Your task to perform on an android device: turn pop-ups off in chrome Image 0: 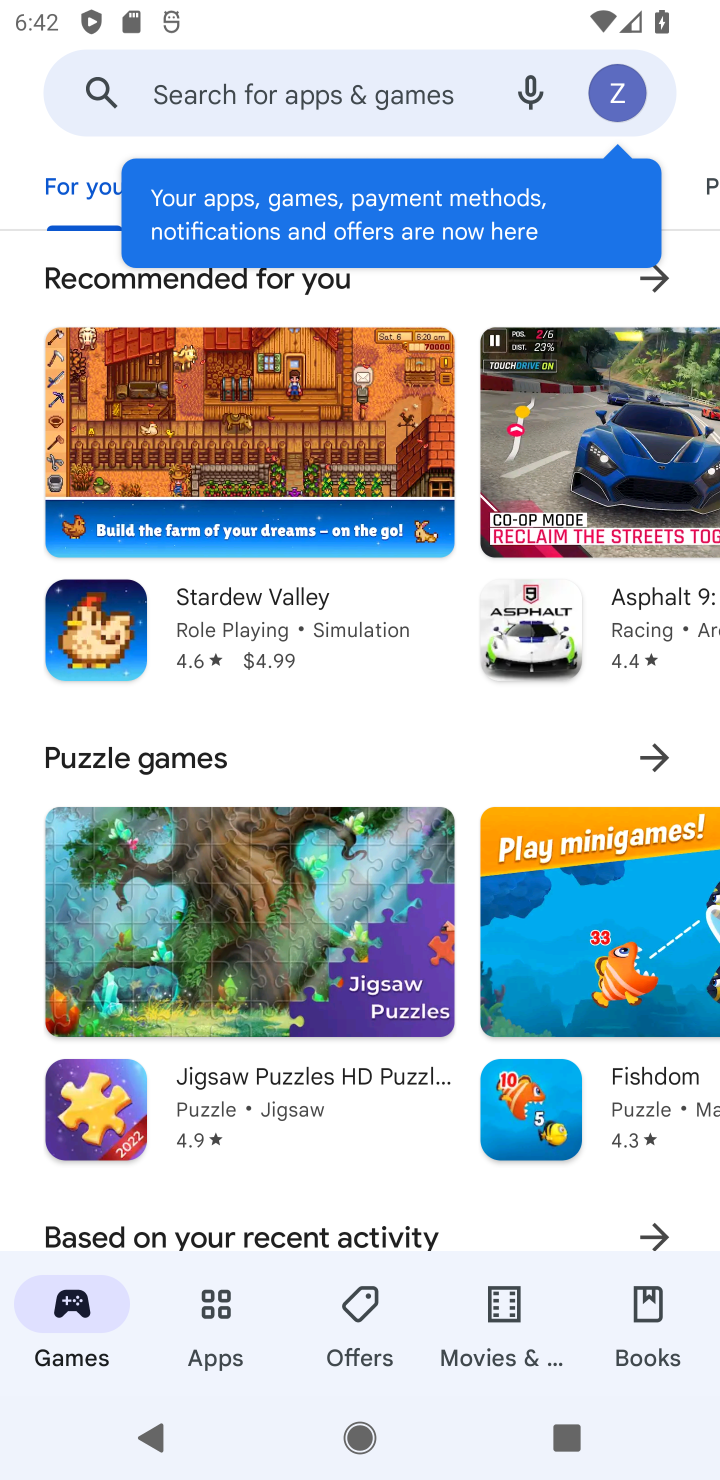
Step 0: press home button
Your task to perform on an android device: turn pop-ups off in chrome Image 1: 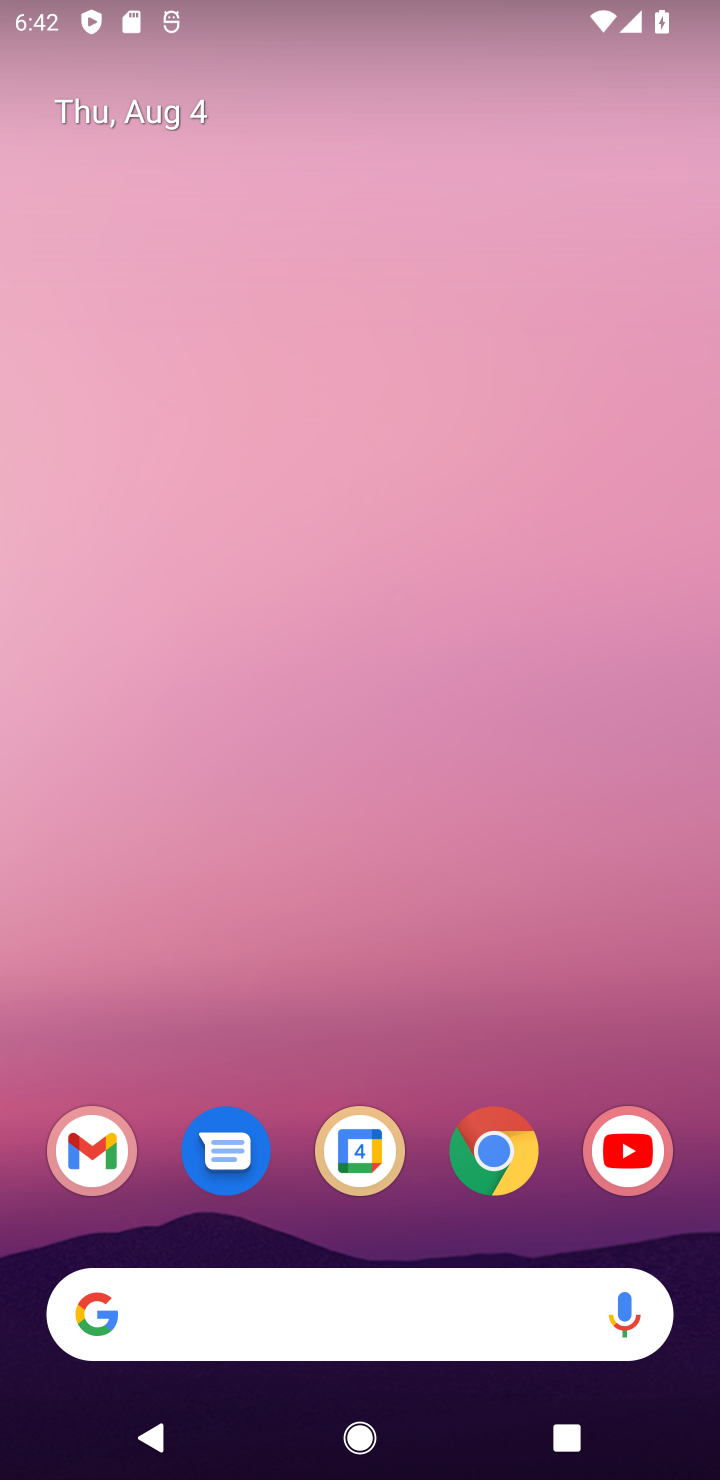
Step 1: click (466, 1152)
Your task to perform on an android device: turn pop-ups off in chrome Image 2: 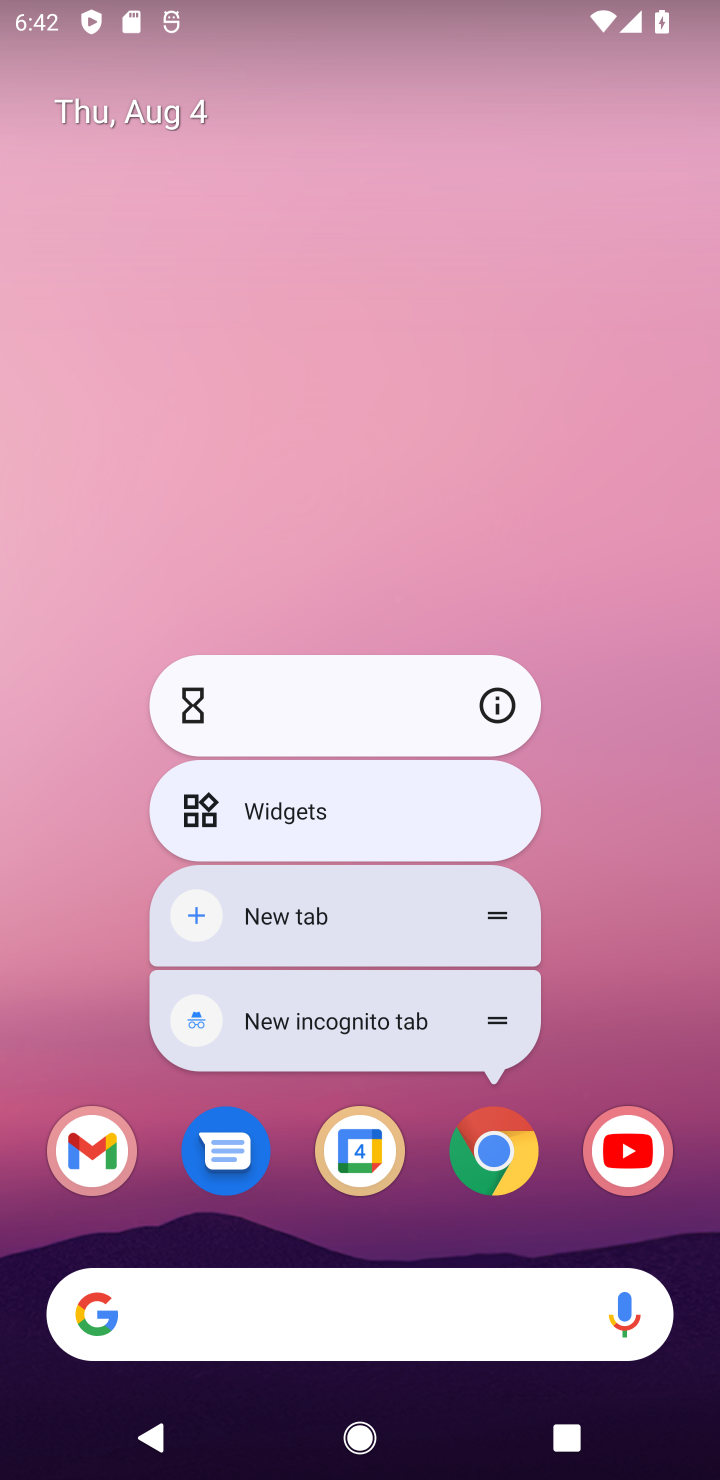
Step 2: click (526, 1137)
Your task to perform on an android device: turn pop-ups off in chrome Image 3: 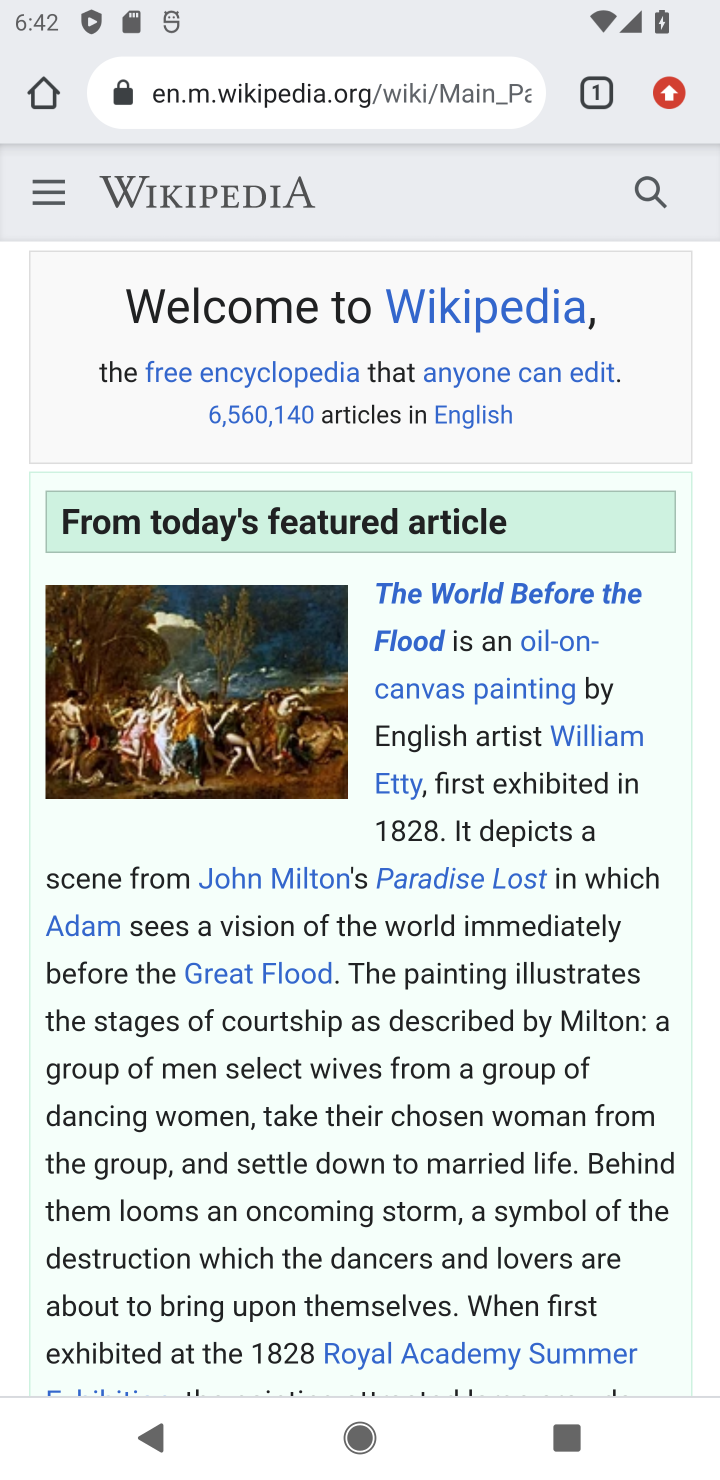
Step 3: click (665, 84)
Your task to perform on an android device: turn pop-ups off in chrome Image 4: 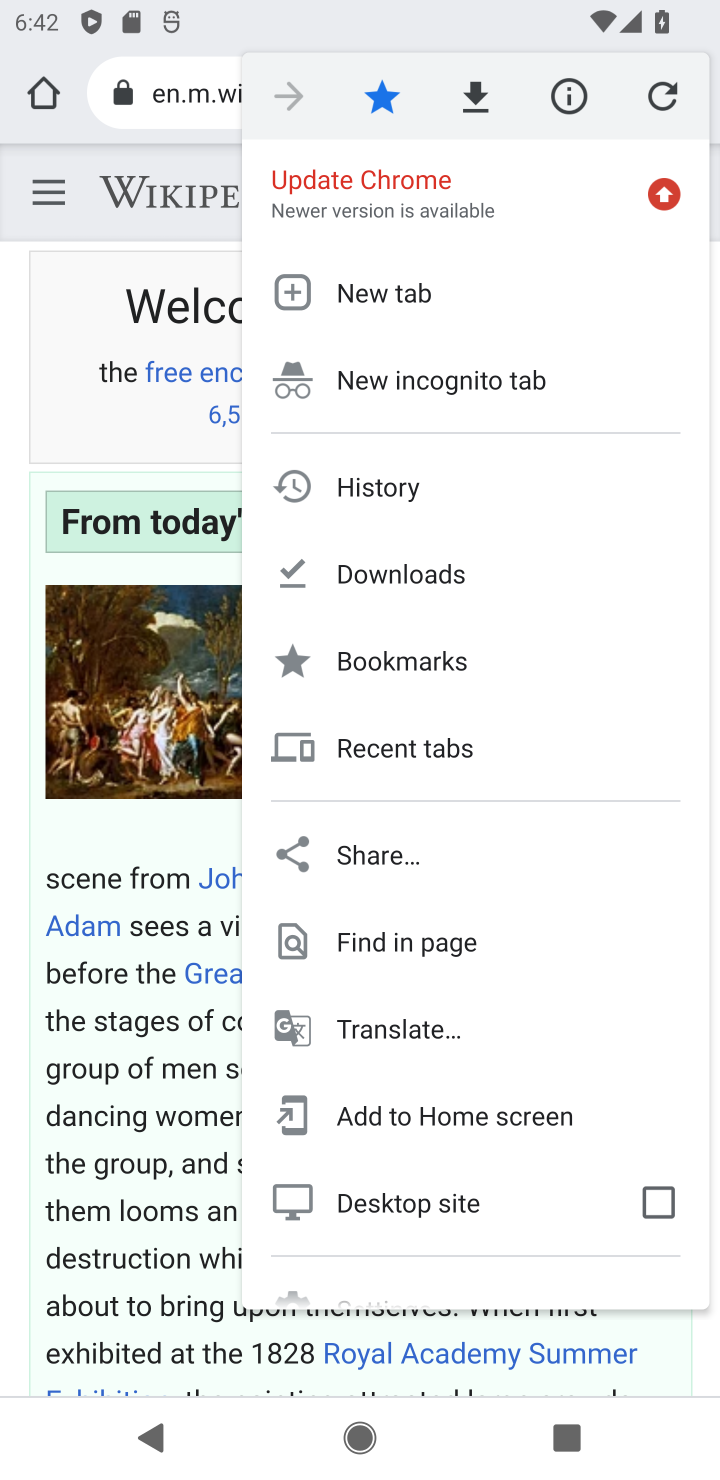
Step 4: drag from (374, 1161) to (415, 503)
Your task to perform on an android device: turn pop-ups off in chrome Image 5: 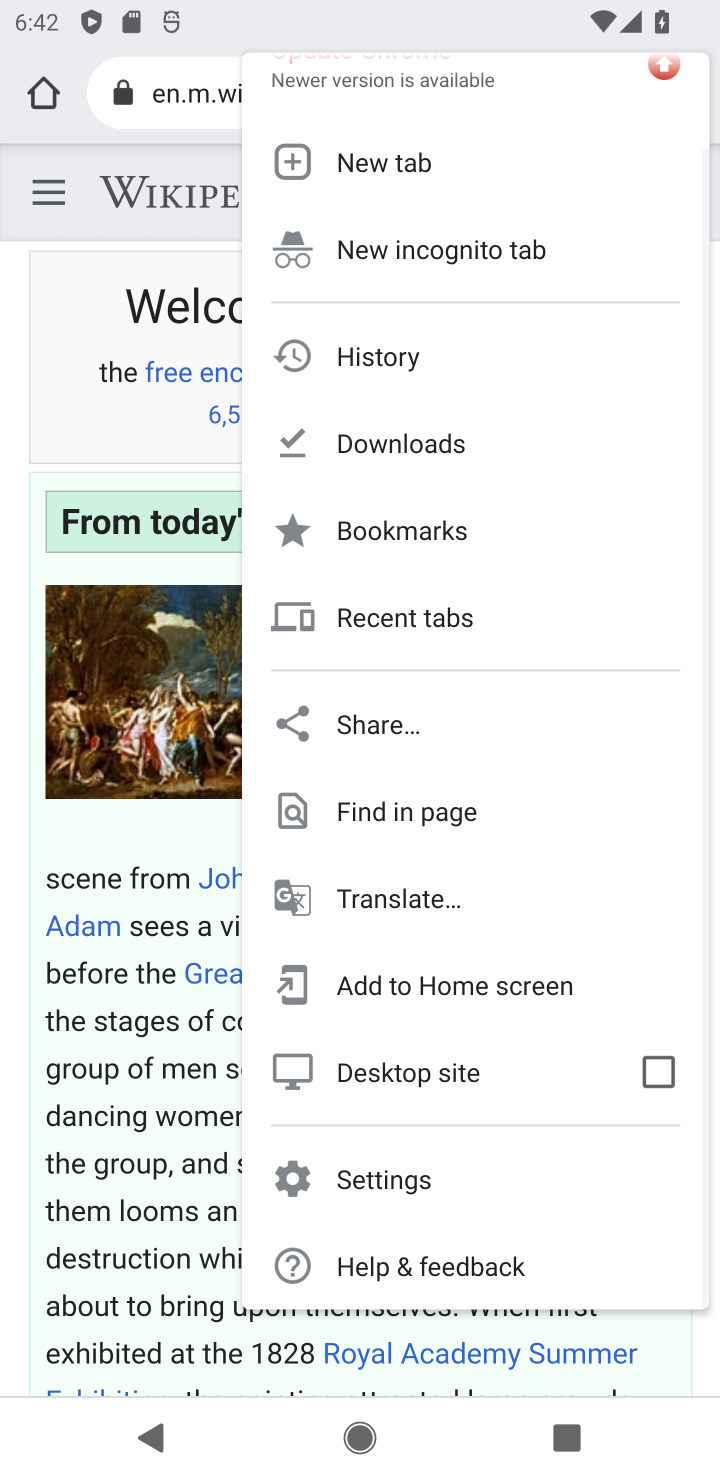
Step 5: click (394, 1181)
Your task to perform on an android device: turn pop-ups off in chrome Image 6: 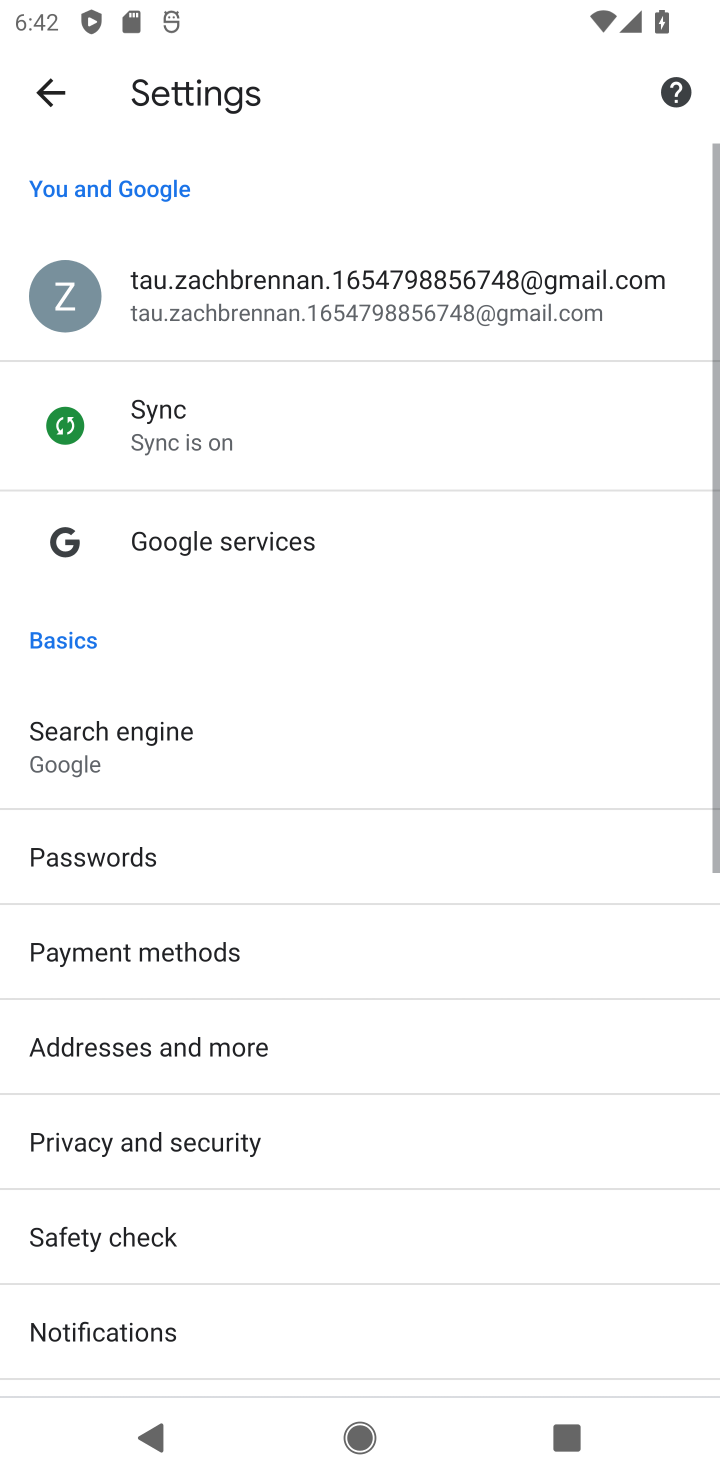
Step 6: drag from (196, 1196) to (196, 536)
Your task to perform on an android device: turn pop-ups off in chrome Image 7: 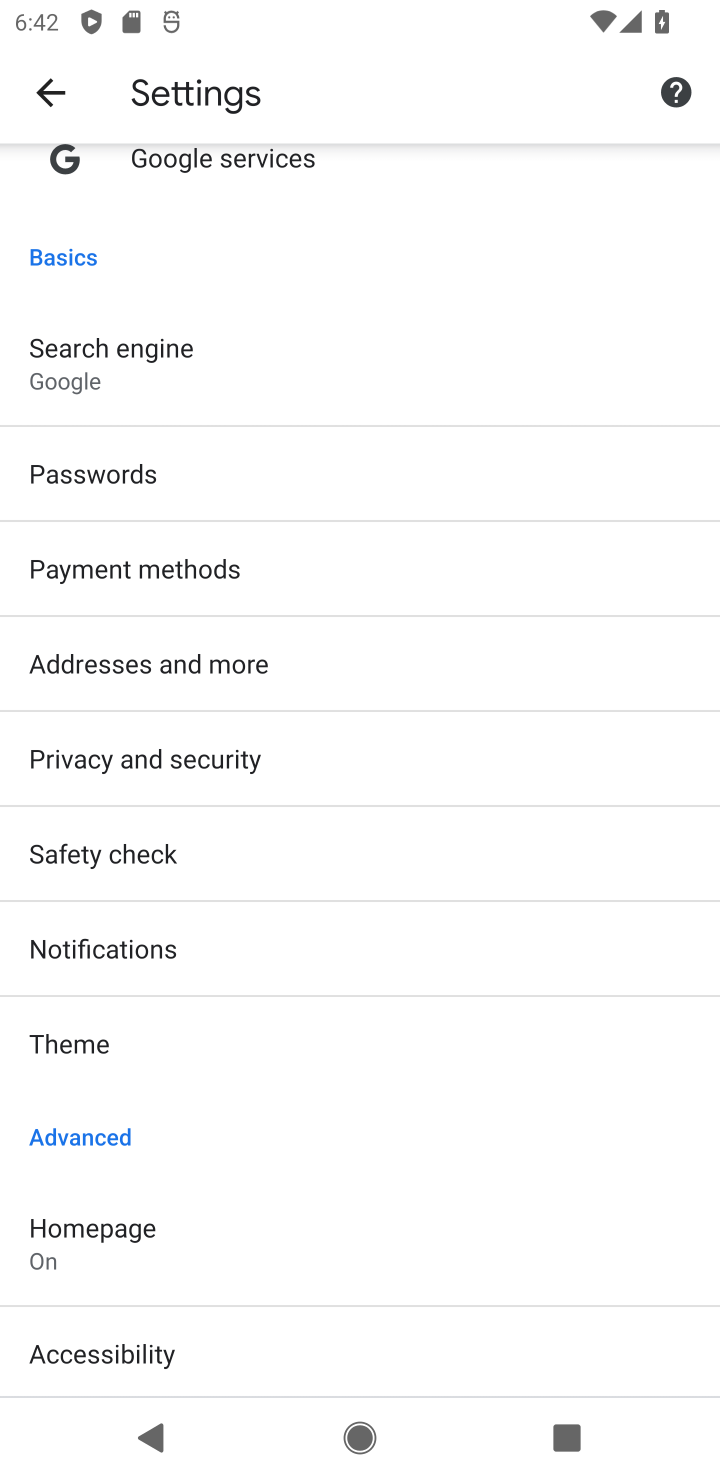
Step 7: drag from (212, 1262) to (237, 594)
Your task to perform on an android device: turn pop-ups off in chrome Image 8: 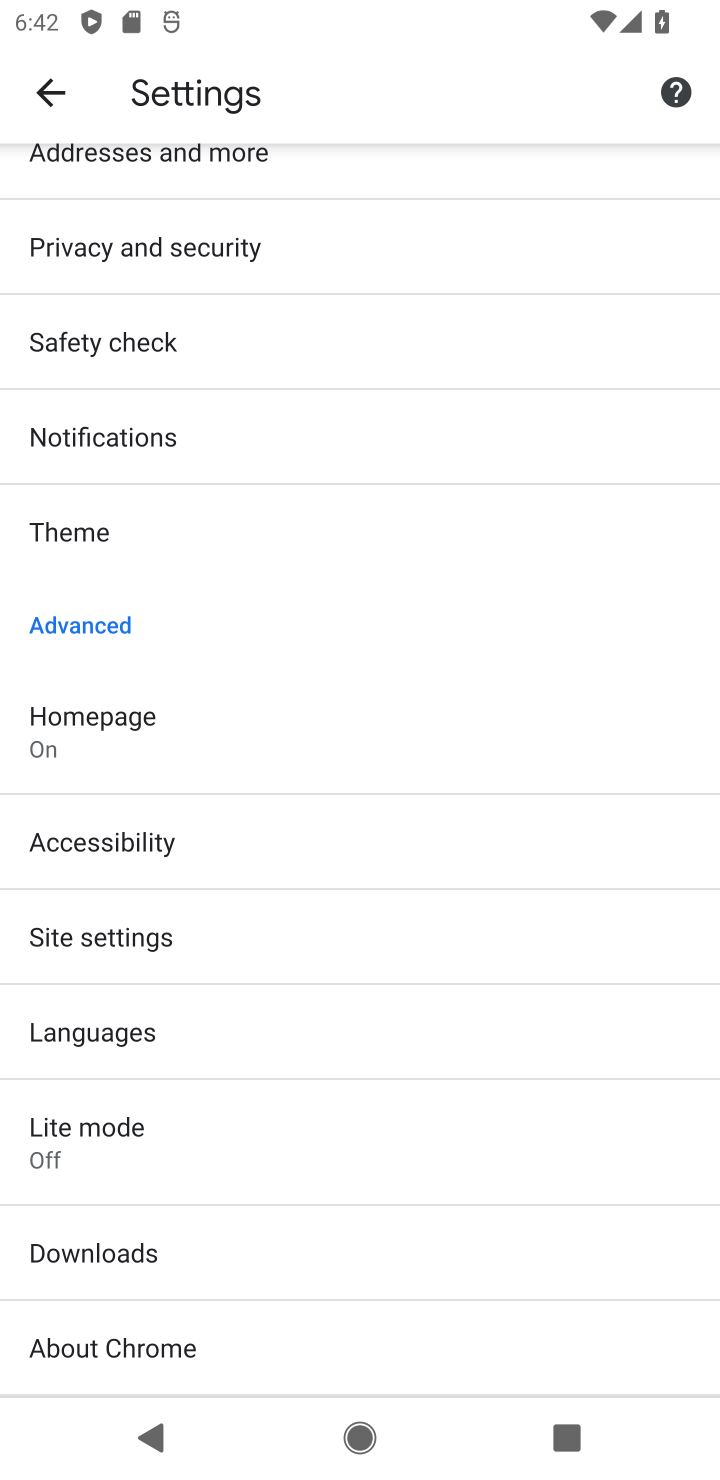
Step 8: click (90, 952)
Your task to perform on an android device: turn pop-ups off in chrome Image 9: 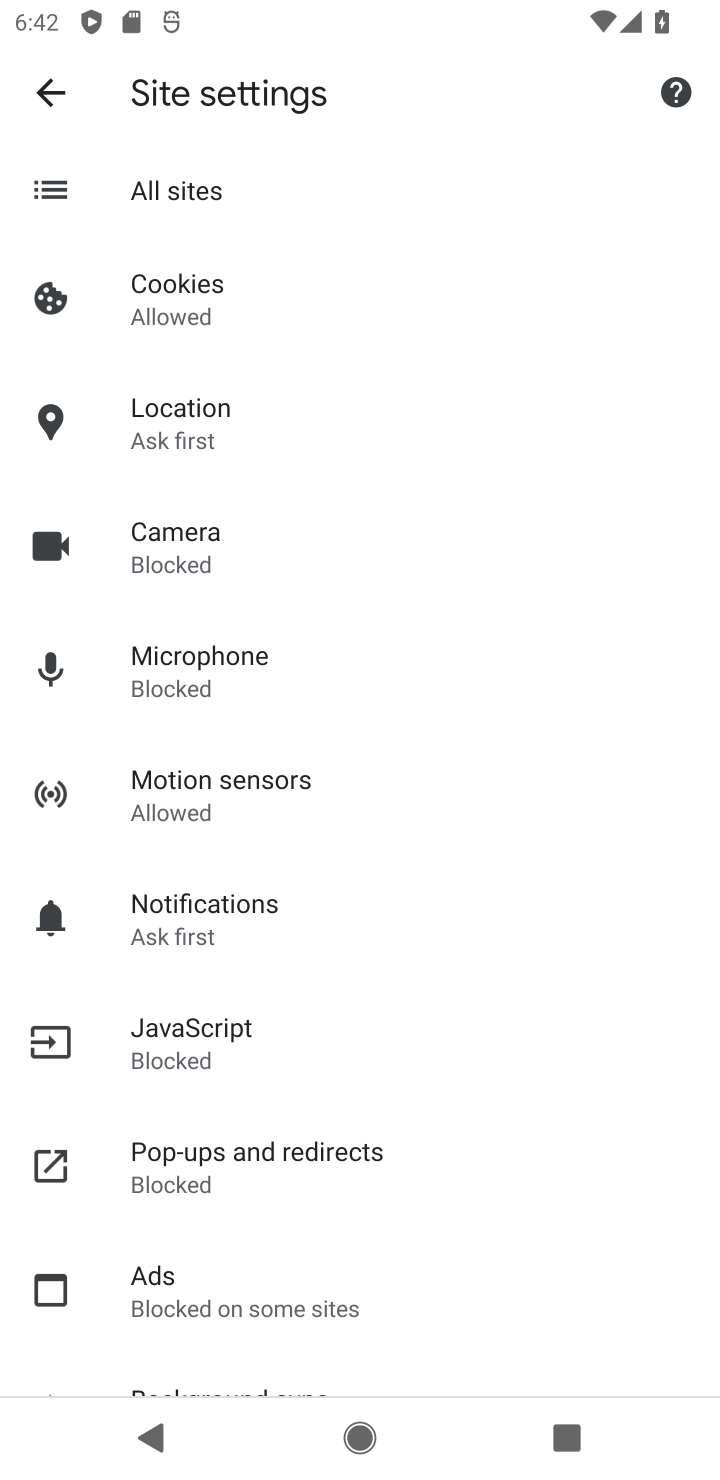
Step 9: click (252, 1159)
Your task to perform on an android device: turn pop-ups off in chrome Image 10: 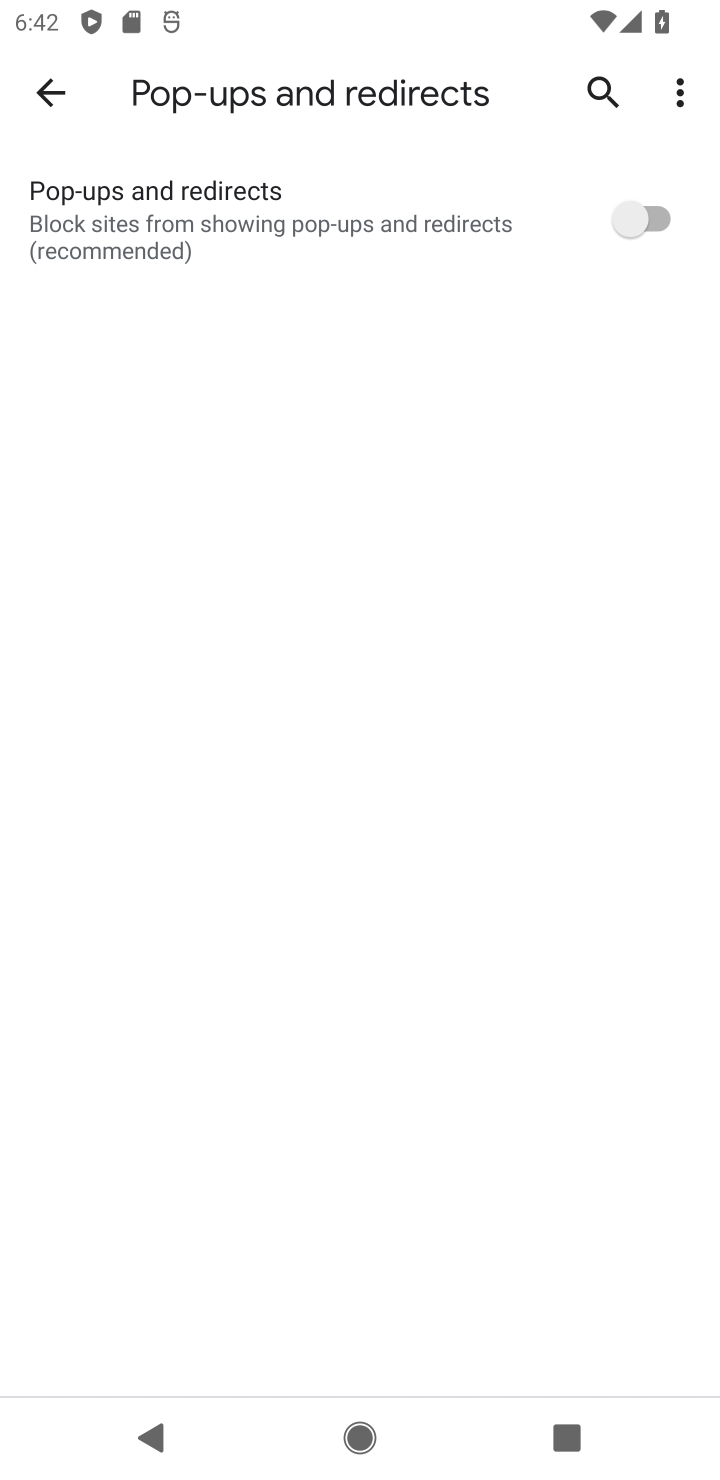
Step 10: task complete